Your task to perform on an android device: Go to privacy settings Image 0: 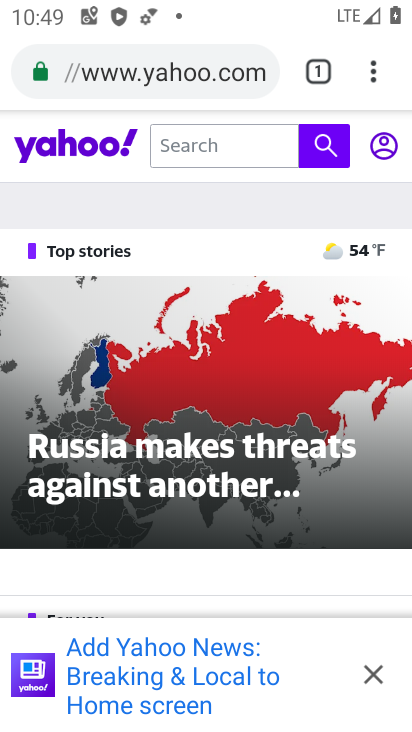
Step 0: press home button
Your task to perform on an android device: Go to privacy settings Image 1: 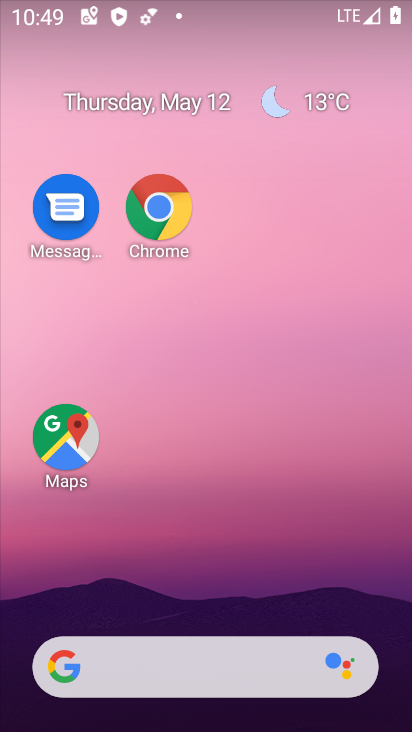
Step 1: drag from (179, 628) to (223, 19)
Your task to perform on an android device: Go to privacy settings Image 2: 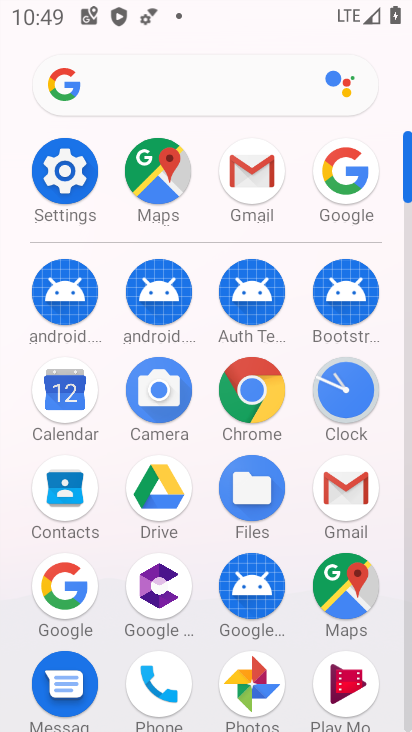
Step 2: click (63, 160)
Your task to perform on an android device: Go to privacy settings Image 3: 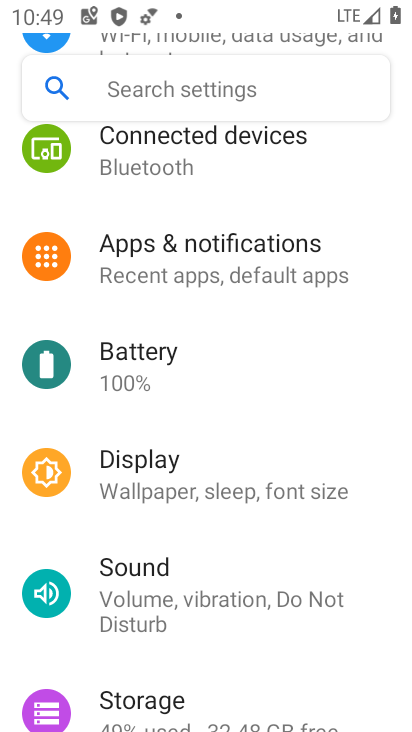
Step 3: drag from (181, 553) to (160, 208)
Your task to perform on an android device: Go to privacy settings Image 4: 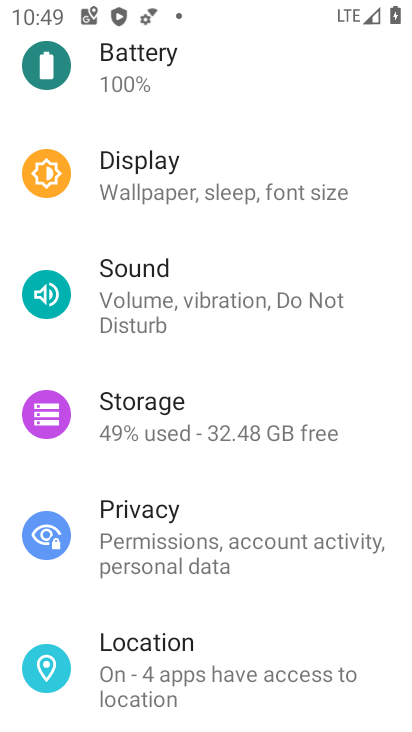
Step 4: click (140, 547)
Your task to perform on an android device: Go to privacy settings Image 5: 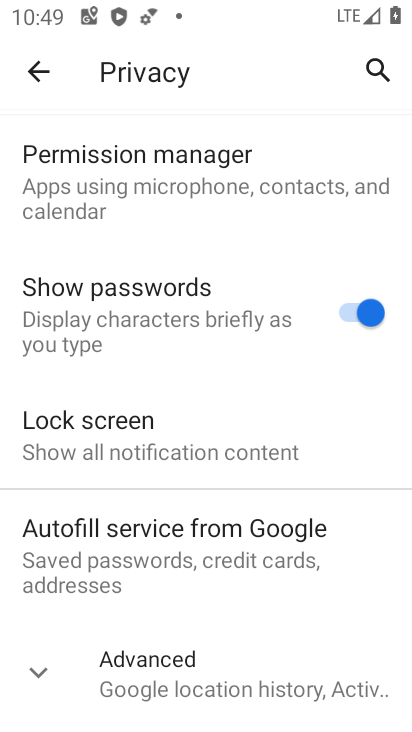
Step 5: task complete